Your task to perform on an android device: Go to wifi settings Image 0: 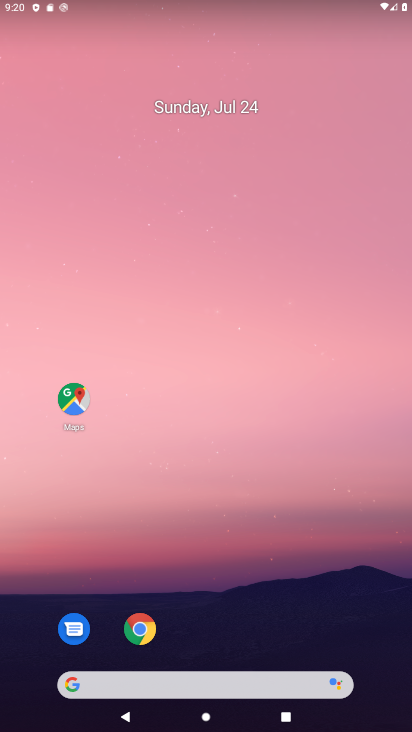
Step 0: drag from (202, 652) to (211, 12)
Your task to perform on an android device: Go to wifi settings Image 1: 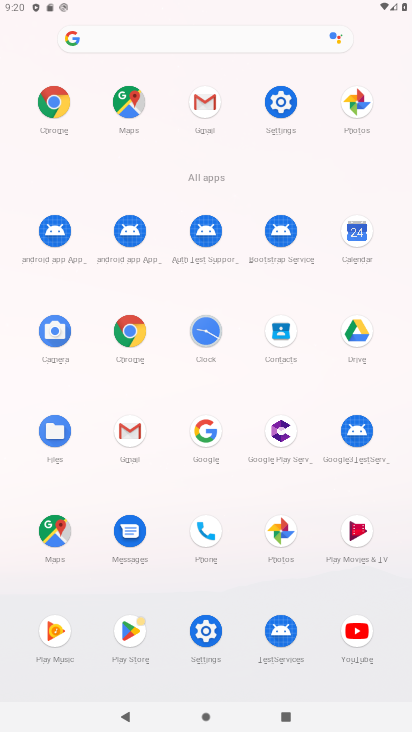
Step 1: click (285, 112)
Your task to perform on an android device: Go to wifi settings Image 2: 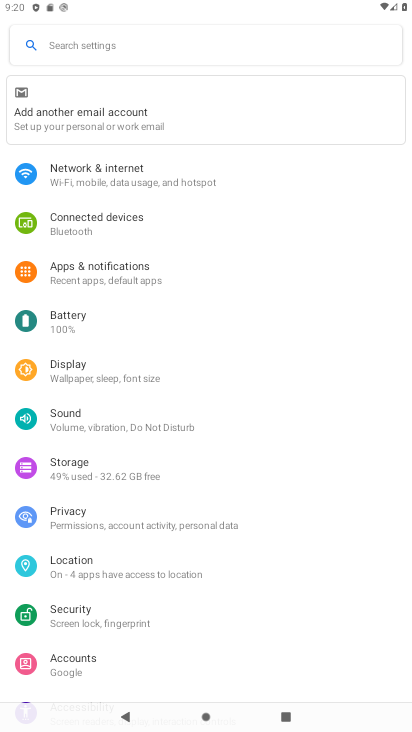
Step 2: click (215, 166)
Your task to perform on an android device: Go to wifi settings Image 3: 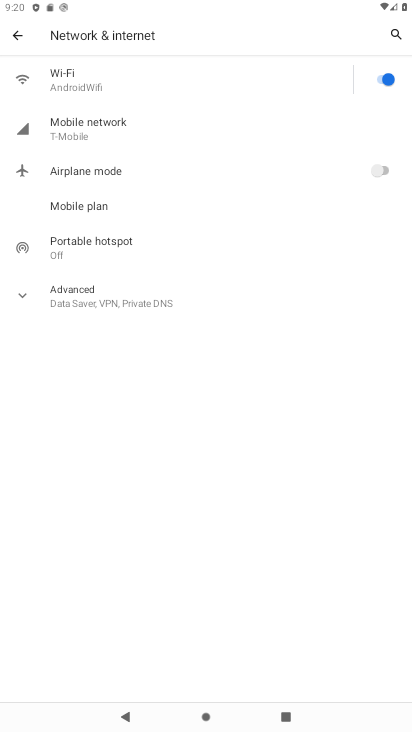
Step 3: task complete